Your task to perform on an android device: move an email to a new category in the gmail app Image 0: 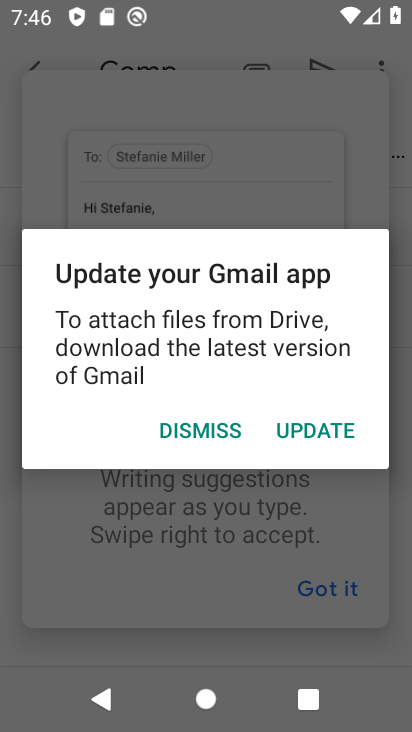
Step 0: press home button
Your task to perform on an android device: move an email to a new category in the gmail app Image 1: 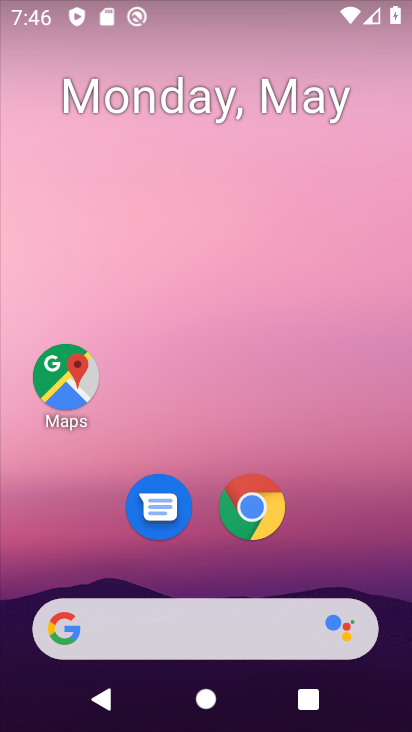
Step 1: drag from (325, 568) to (338, 11)
Your task to perform on an android device: move an email to a new category in the gmail app Image 2: 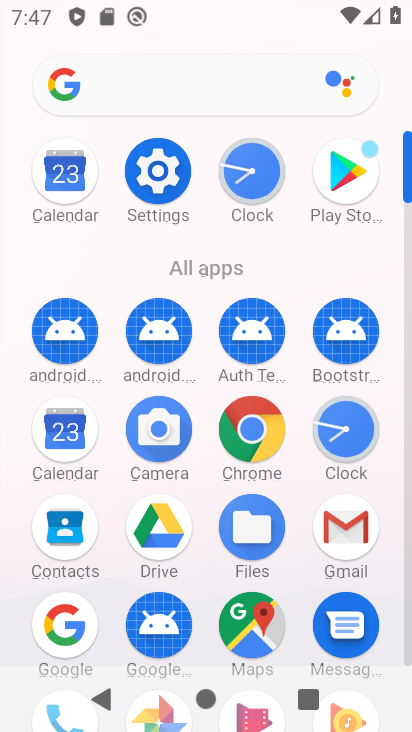
Step 2: click (345, 524)
Your task to perform on an android device: move an email to a new category in the gmail app Image 3: 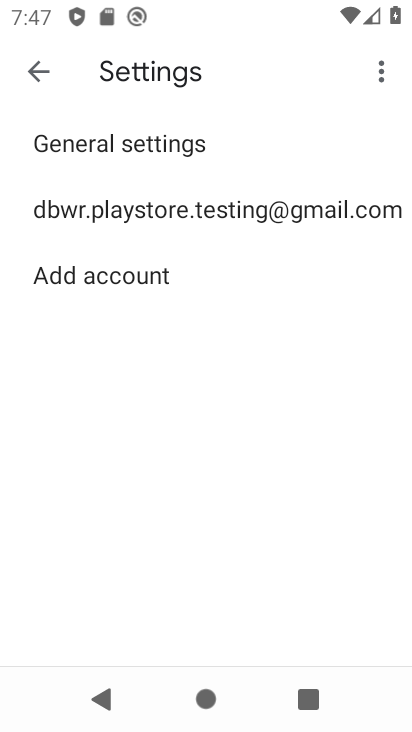
Step 3: click (37, 72)
Your task to perform on an android device: move an email to a new category in the gmail app Image 4: 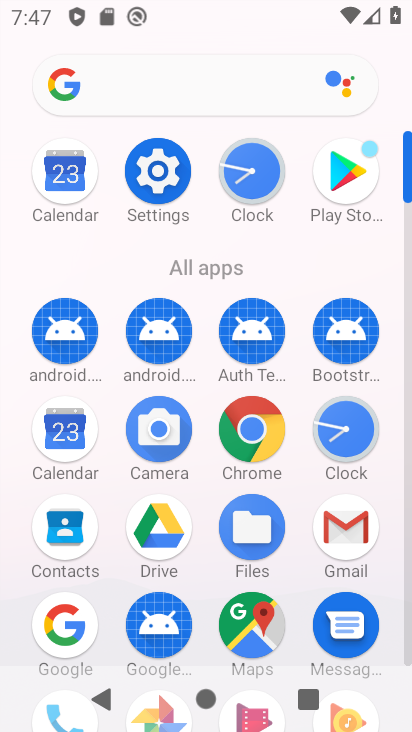
Step 4: click (354, 535)
Your task to perform on an android device: move an email to a new category in the gmail app Image 5: 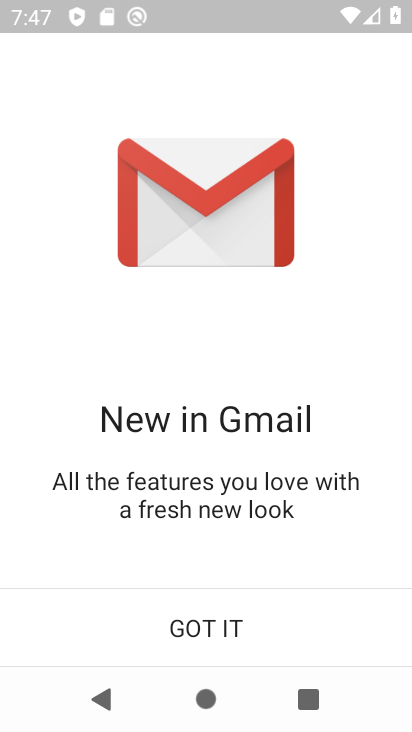
Step 5: click (201, 626)
Your task to perform on an android device: move an email to a new category in the gmail app Image 6: 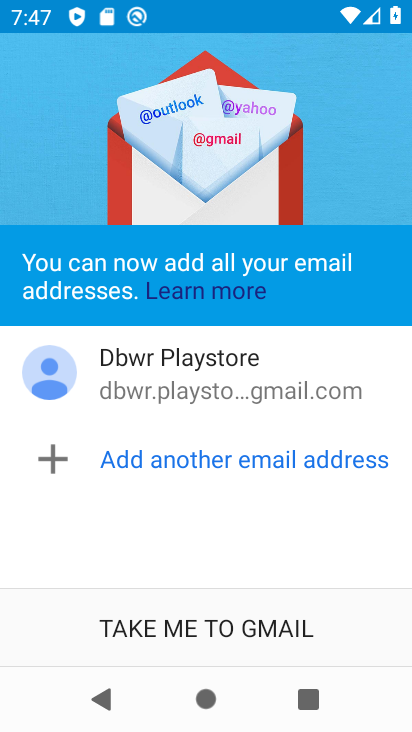
Step 6: click (201, 626)
Your task to perform on an android device: move an email to a new category in the gmail app Image 7: 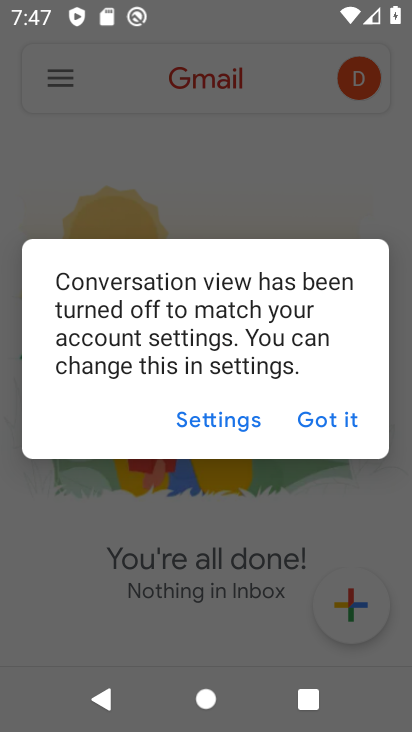
Step 7: click (331, 428)
Your task to perform on an android device: move an email to a new category in the gmail app Image 8: 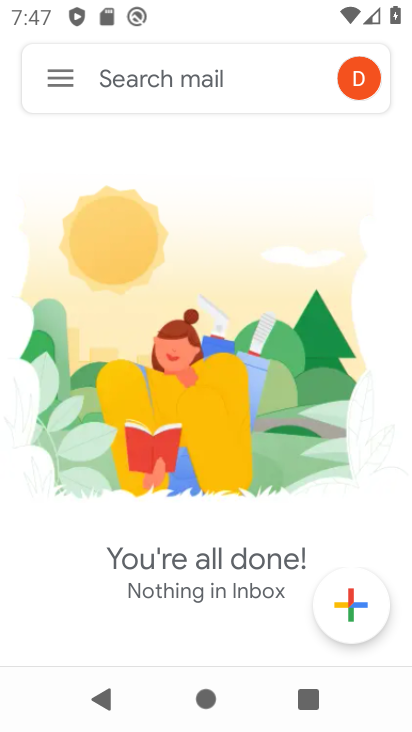
Step 8: click (52, 77)
Your task to perform on an android device: move an email to a new category in the gmail app Image 9: 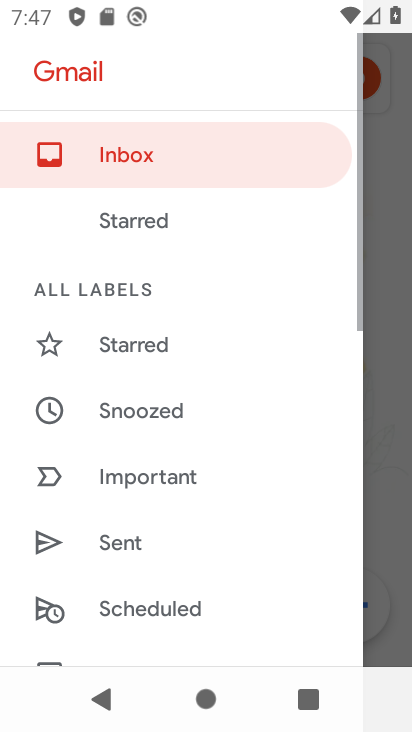
Step 9: drag from (151, 556) to (140, 206)
Your task to perform on an android device: move an email to a new category in the gmail app Image 10: 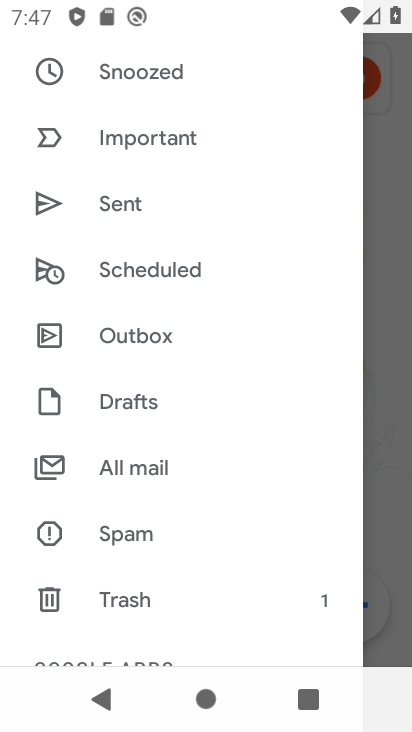
Step 10: click (120, 478)
Your task to perform on an android device: move an email to a new category in the gmail app Image 11: 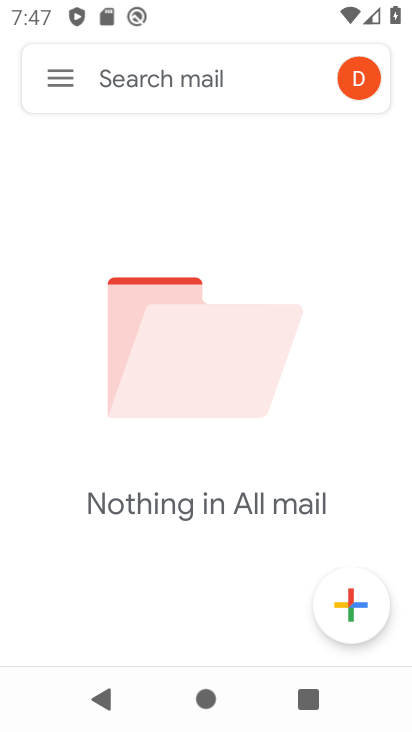
Step 11: drag from (153, 504) to (157, 286)
Your task to perform on an android device: move an email to a new category in the gmail app Image 12: 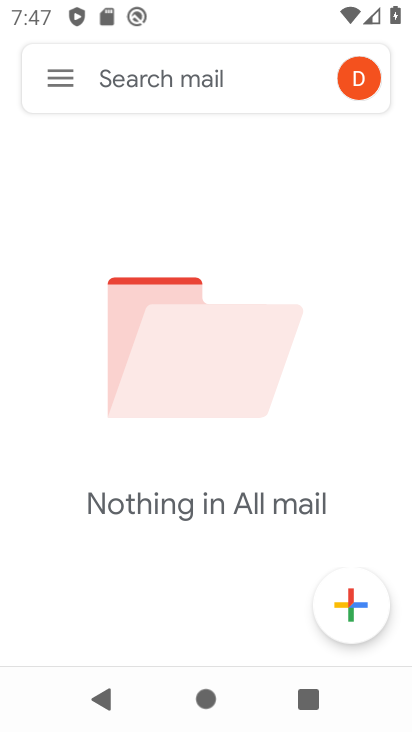
Step 12: click (59, 71)
Your task to perform on an android device: move an email to a new category in the gmail app Image 13: 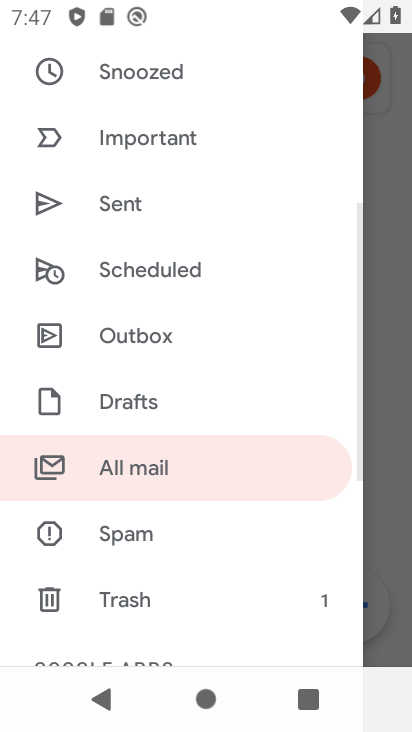
Step 13: click (151, 604)
Your task to perform on an android device: move an email to a new category in the gmail app Image 14: 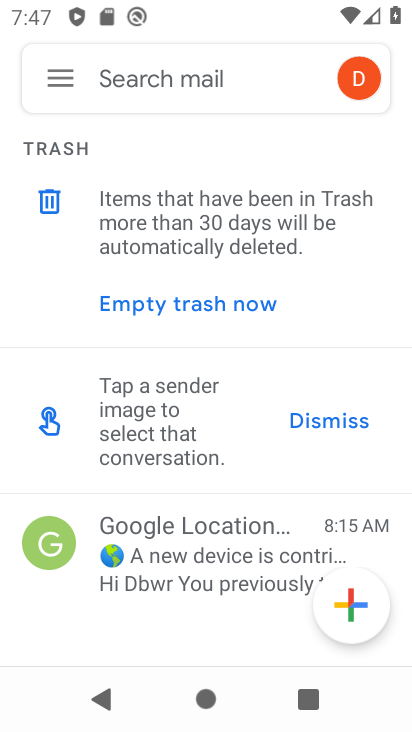
Step 14: click (174, 555)
Your task to perform on an android device: move an email to a new category in the gmail app Image 15: 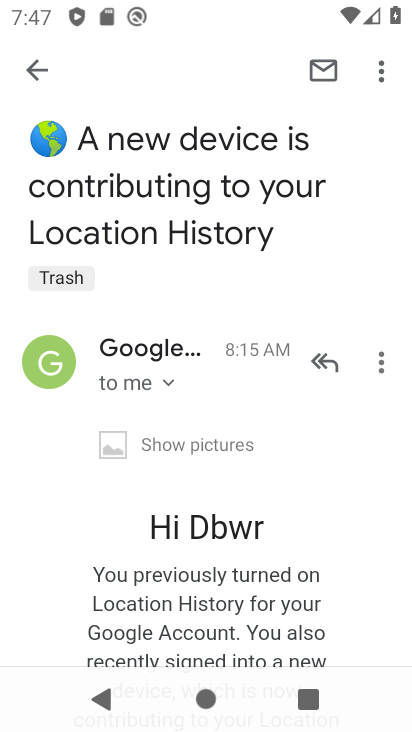
Step 15: click (383, 76)
Your task to perform on an android device: move an email to a new category in the gmail app Image 16: 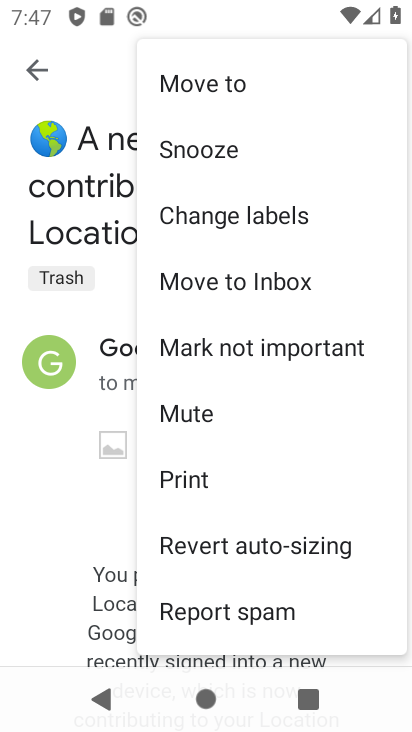
Step 16: click (196, 89)
Your task to perform on an android device: move an email to a new category in the gmail app Image 17: 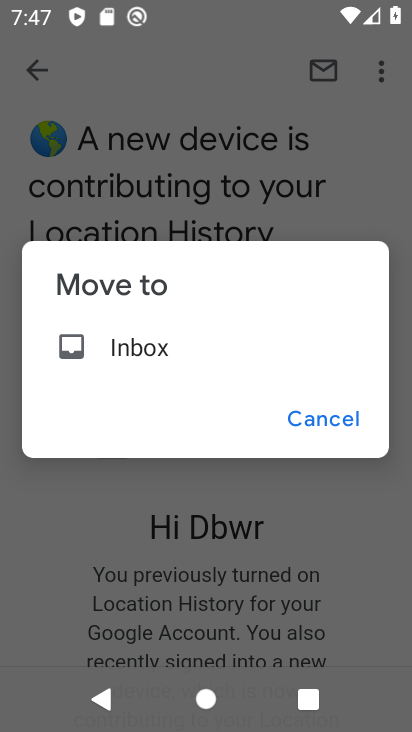
Step 17: click (137, 356)
Your task to perform on an android device: move an email to a new category in the gmail app Image 18: 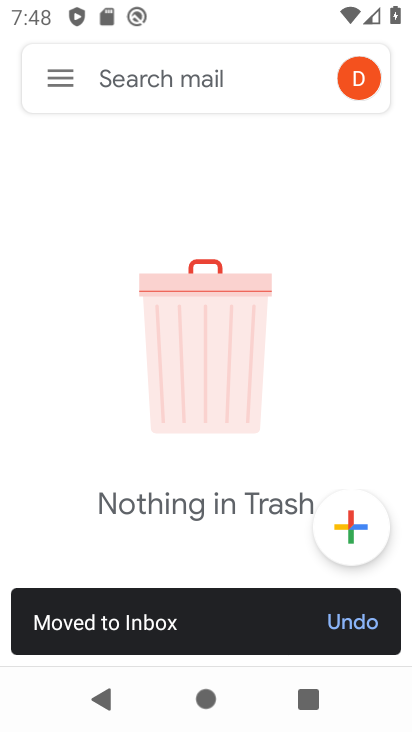
Step 18: task complete